Your task to perform on an android device: delete a single message in the gmail app Image 0: 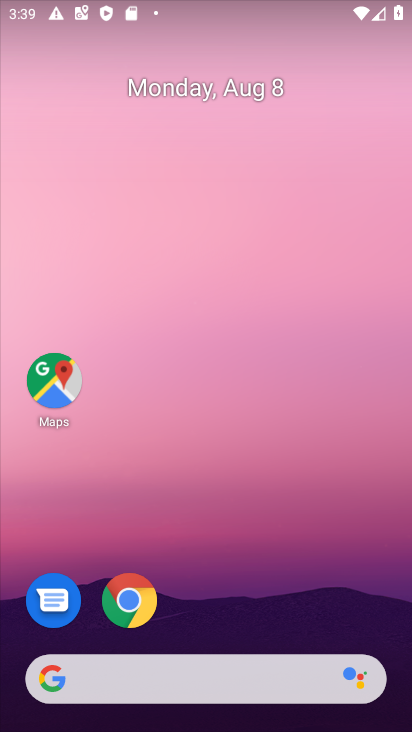
Step 0: drag from (393, 671) to (339, 117)
Your task to perform on an android device: delete a single message in the gmail app Image 1: 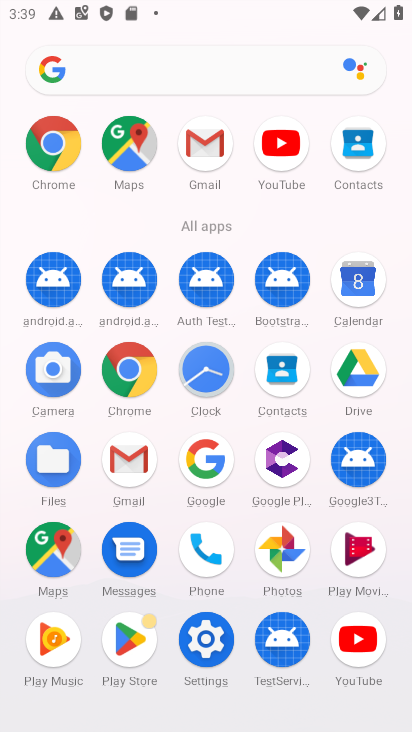
Step 1: click (126, 458)
Your task to perform on an android device: delete a single message in the gmail app Image 2: 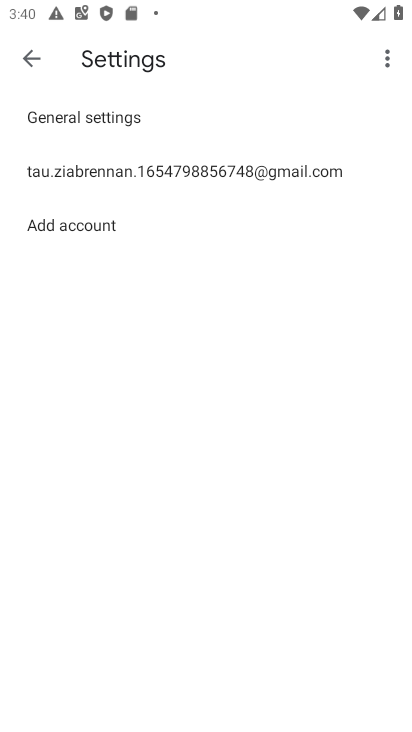
Step 2: click (30, 62)
Your task to perform on an android device: delete a single message in the gmail app Image 3: 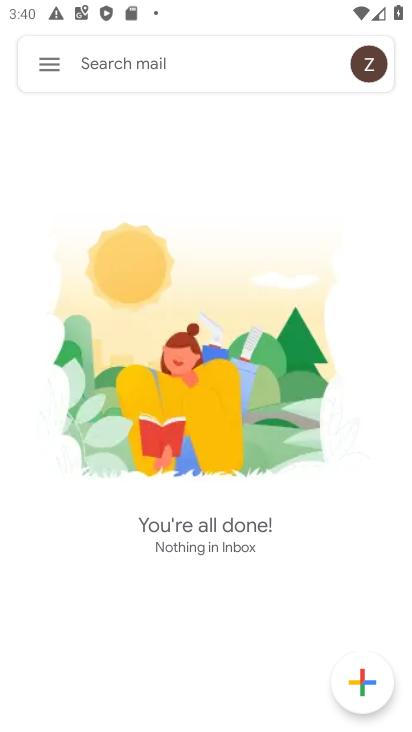
Step 3: task complete